Your task to perform on an android device: Open Google Maps and go to "Timeline" Image 0: 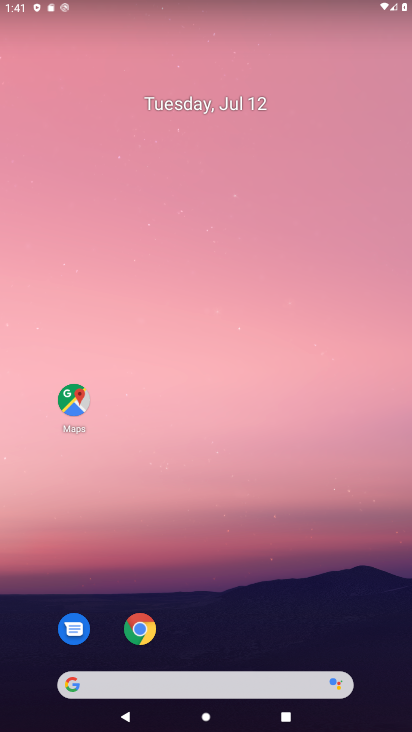
Step 0: click (60, 397)
Your task to perform on an android device: Open Google Maps and go to "Timeline" Image 1: 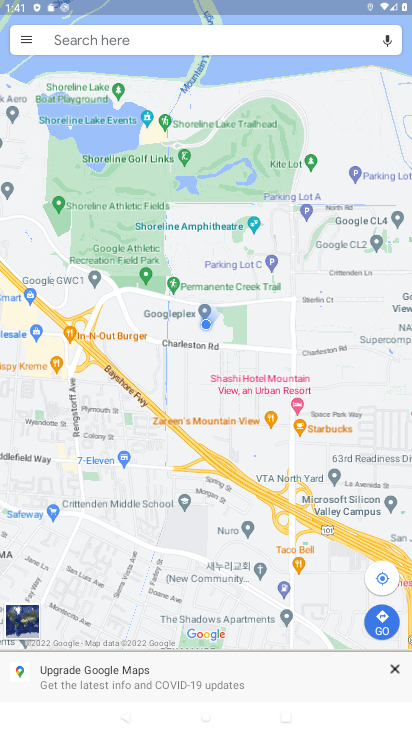
Step 1: click (24, 39)
Your task to perform on an android device: Open Google Maps and go to "Timeline" Image 2: 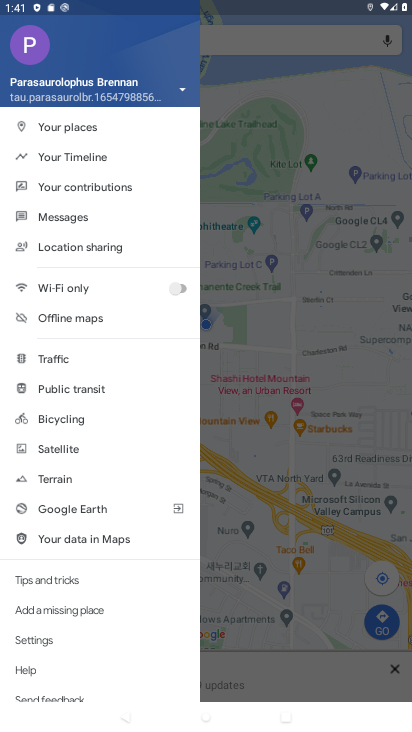
Step 2: click (85, 156)
Your task to perform on an android device: Open Google Maps and go to "Timeline" Image 3: 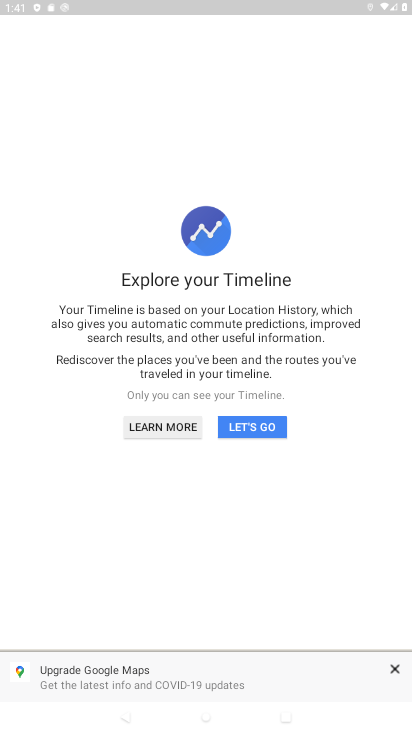
Step 3: click (257, 431)
Your task to perform on an android device: Open Google Maps and go to "Timeline" Image 4: 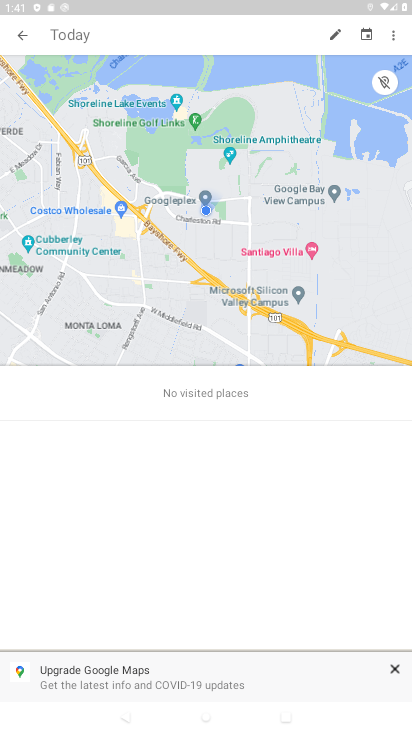
Step 4: task complete